Your task to perform on an android device: turn off location Image 0: 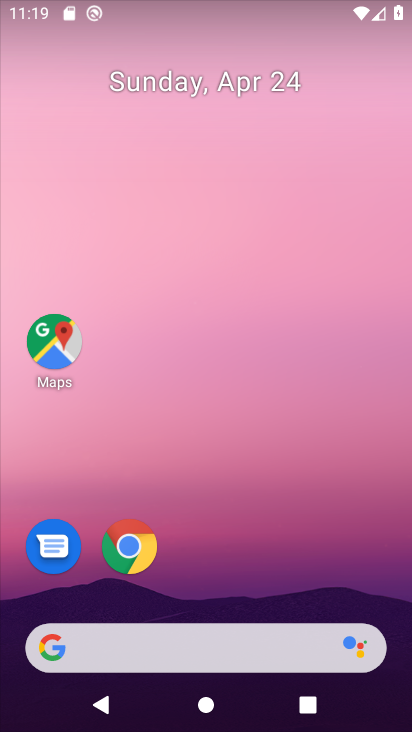
Step 0: drag from (200, 418) to (247, 15)
Your task to perform on an android device: turn off location Image 1: 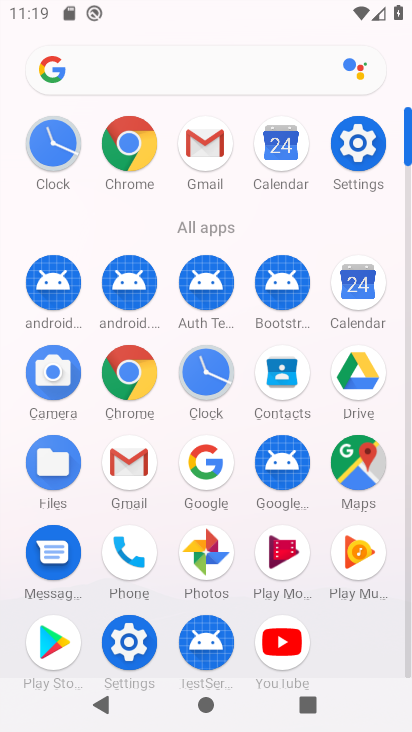
Step 1: click (370, 138)
Your task to perform on an android device: turn off location Image 2: 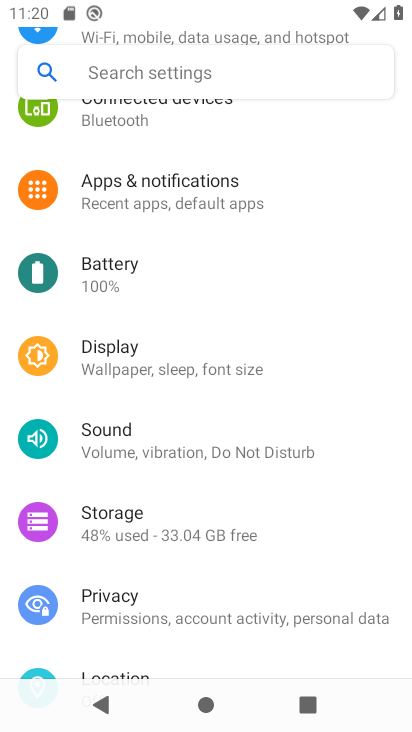
Step 2: drag from (194, 532) to (230, 244)
Your task to perform on an android device: turn off location Image 3: 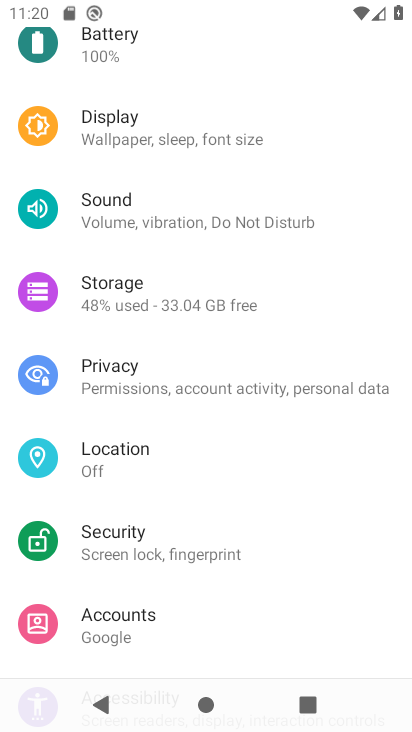
Step 3: click (147, 465)
Your task to perform on an android device: turn off location Image 4: 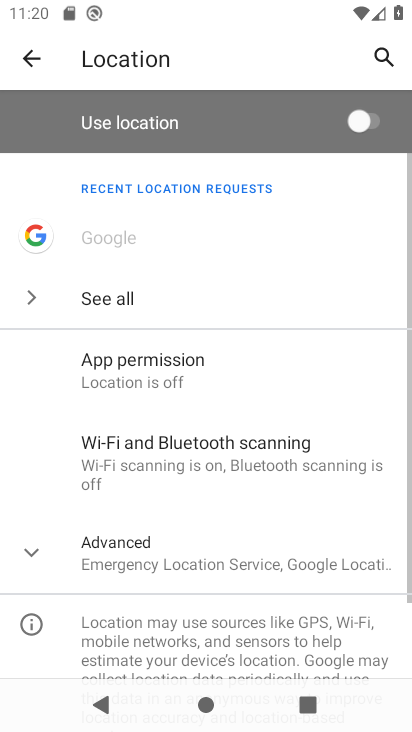
Step 4: task complete